Your task to perform on an android device: Show me popular games on the Play Store Image 0: 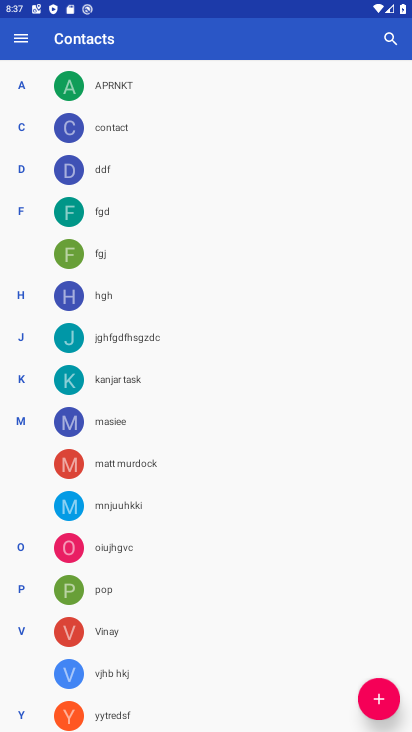
Step 0: press home button
Your task to perform on an android device: Show me popular games on the Play Store Image 1: 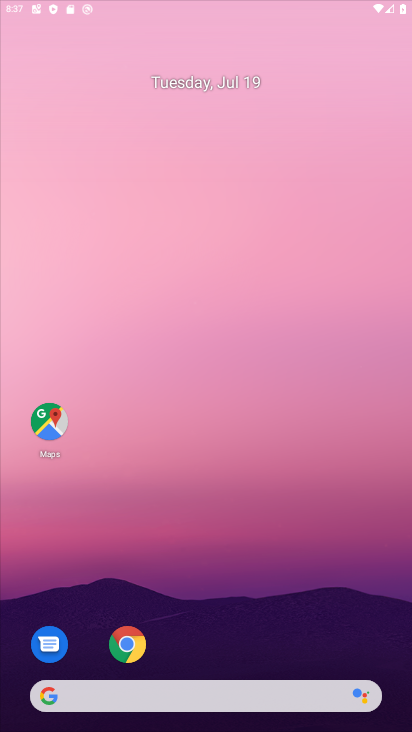
Step 1: drag from (209, 576) to (304, 304)
Your task to perform on an android device: Show me popular games on the Play Store Image 2: 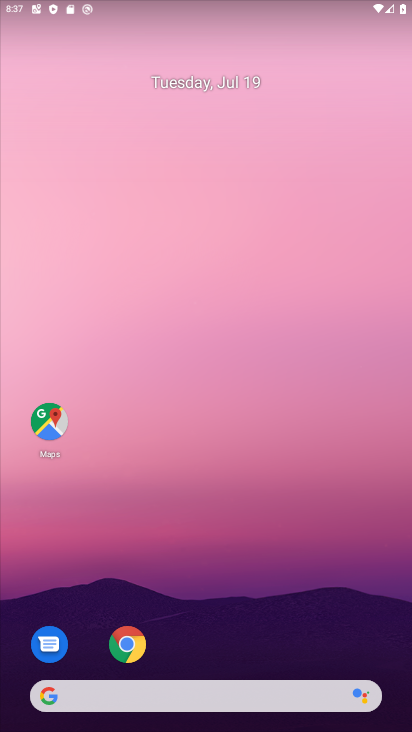
Step 2: drag from (223, 642) to (121, 64)
Your task to perform on an android device: Show me popular games on the Play Store Image 3: 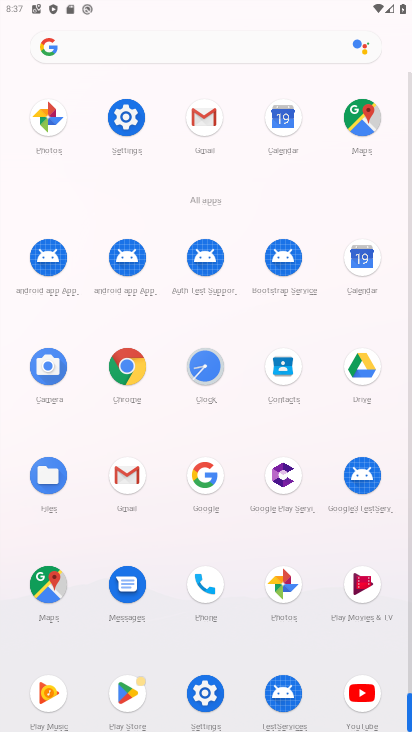
Step 3: click (119, 680)
Your task to perform on an android device: Show me popular games on the Play Store Image 4: 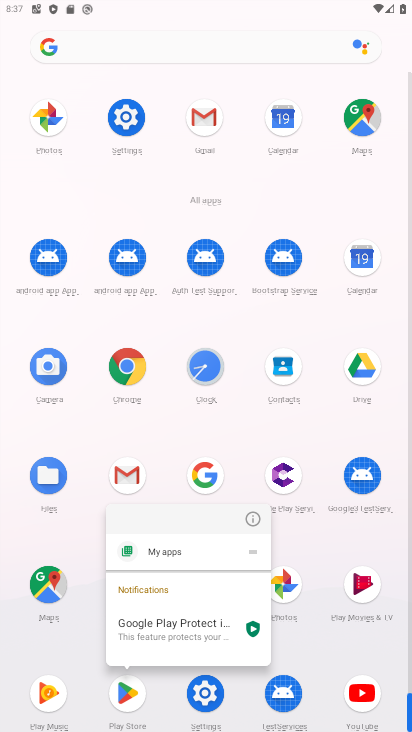
Step 4: click (246, 516)
Your task to perform on an android device: Show me popular games on the Play Store Image 5: 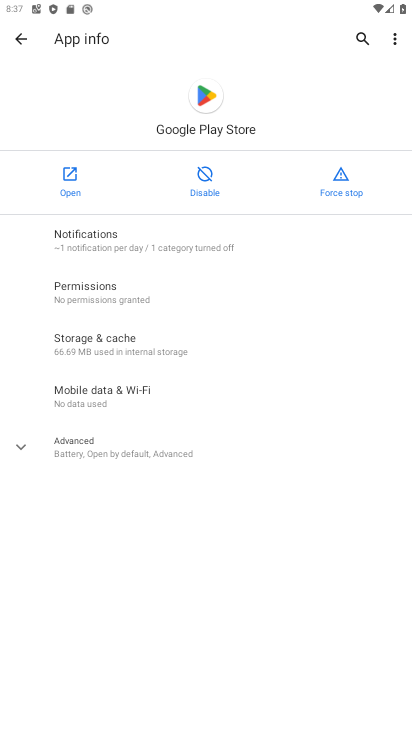
Step 5: click (75, 192)
Your task to perform on an android device: Show me popular games on the Play Store Image 6: 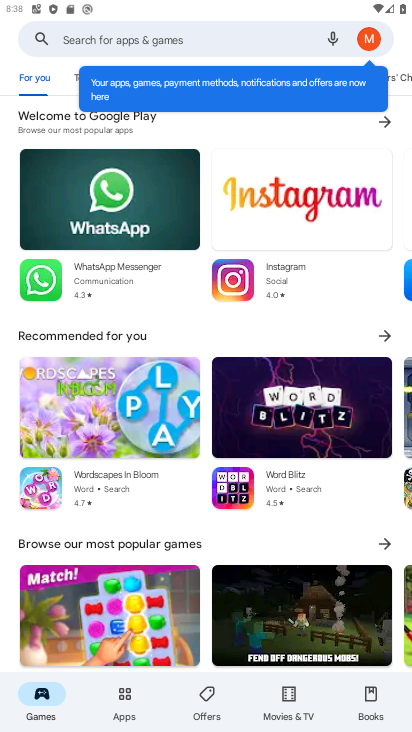
Step 6: drag from (208, 611) to (174, 209)
Your task to perform on an android device: Show me popular games on the Play Store Image 7: 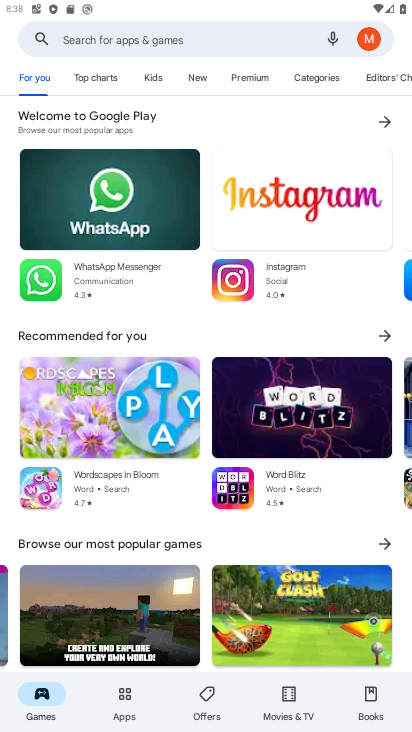
Step 7: drag from (217, 582) to (234, 293)
Your task to perform on an android device: Show me popular games on the Play Store Image 8: 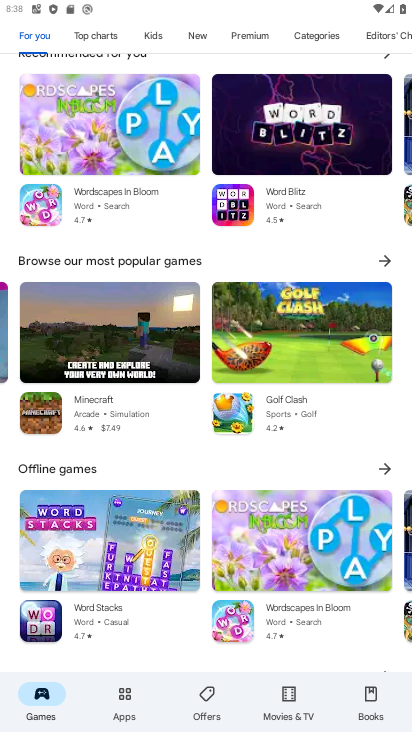
Step 8: drag from (202, 242) to (268, 658)
Your task to perform on an android device: Show me popular games on the Play Store Image 9: 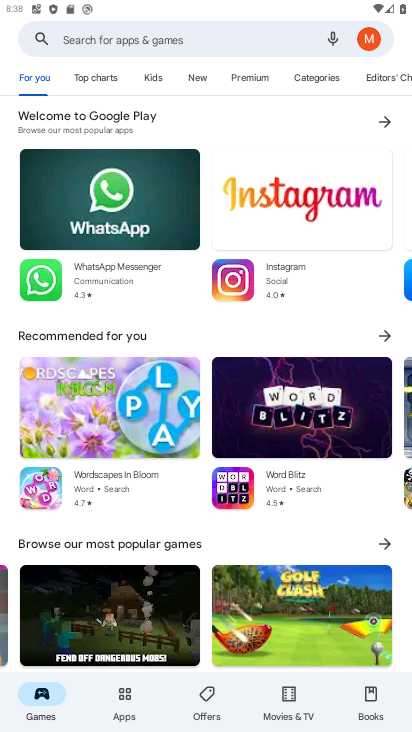
Step 9: click (386, 542)
Your task to perform on an android device: Show me popular games on the Play Store Image 10: 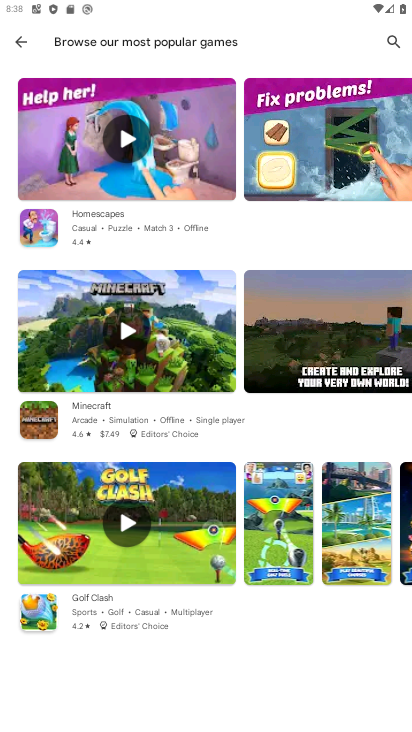
Step 10: task complete